Your task to perform on an android device: Go to calendar. Show me events next week Image 0: 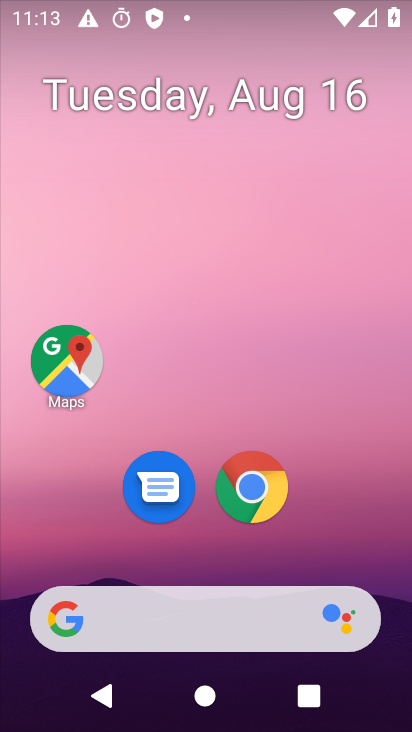
Step 0: drag from (401, 547) to (275, 177)
Your task to perform on an android device: Go to calendar. Show me events next week Image 1: 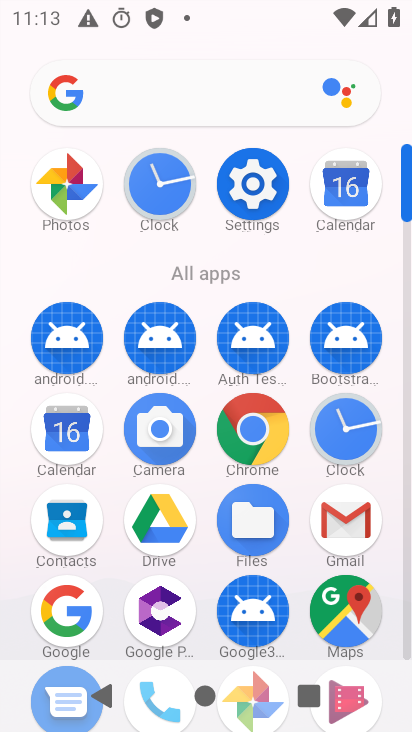
Step 1: click (72, 441)
Your task to perform on an android device: Go to calendar. Show me events next week Image 2: 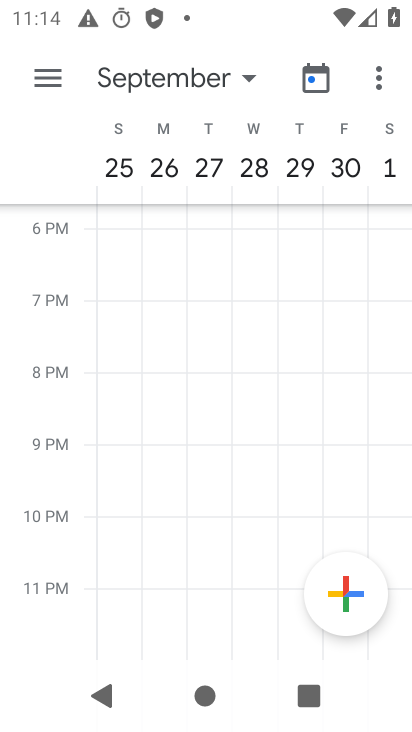
Step 2: click (160, 85)
Your task to perform on an android device: Go to calendar. Show me events next week Image 3: 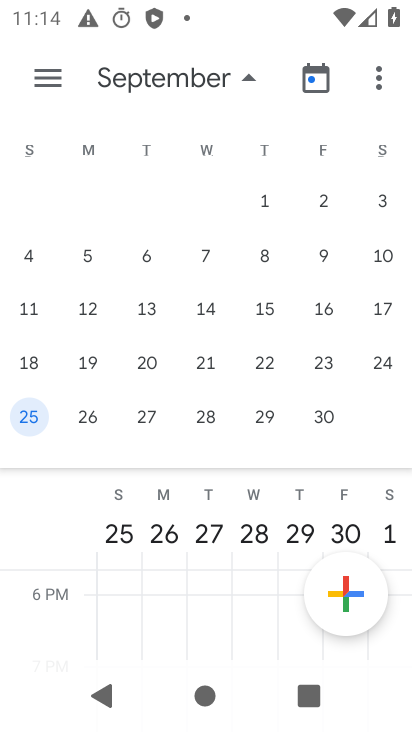
Step 3: drag from (99, 273) to (410, 296)
Your task to perform on an android device: Go to calendar. Show me events next week Image 4: 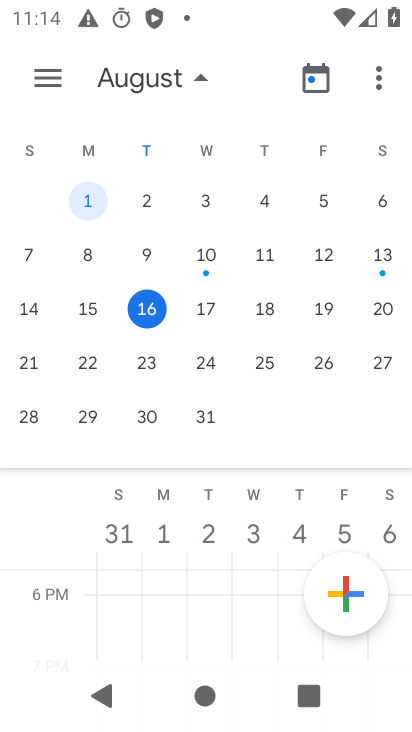
Step 4: click (204, 364)
Your task to perform on an android device: Go to calendar. Show me events next week Image 5: 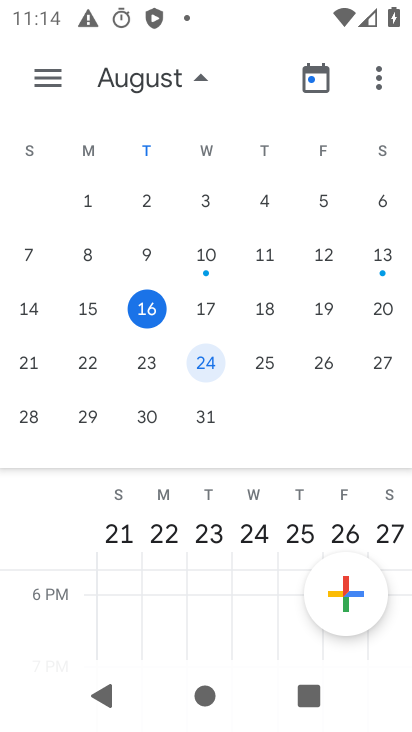
Step 5: task complete